Your task to perform on an android device: open app "Cash App" Image 0: 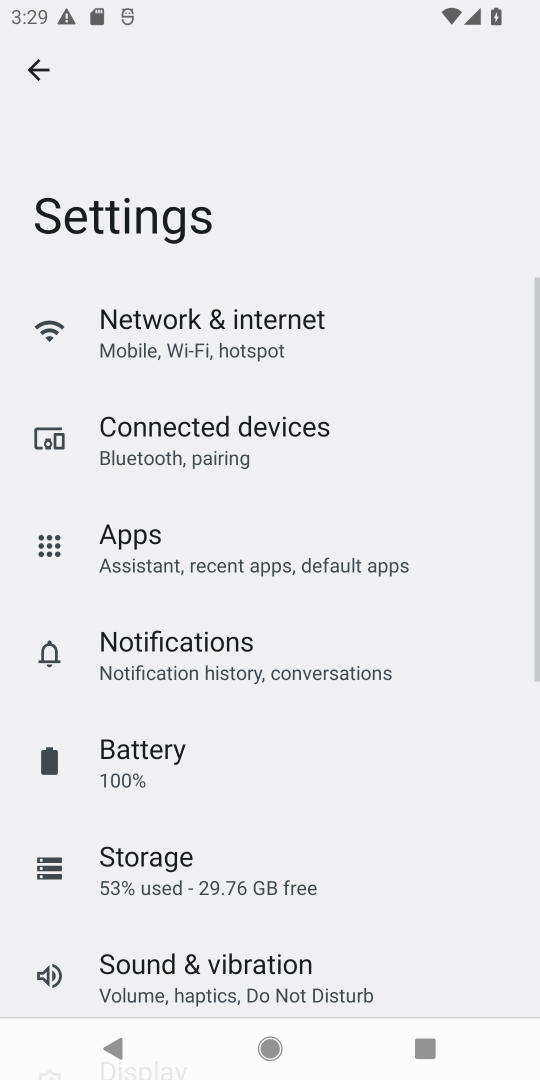
Step 0: press back button
Your task to perform on an android device: open app "Cash App" Image 1: 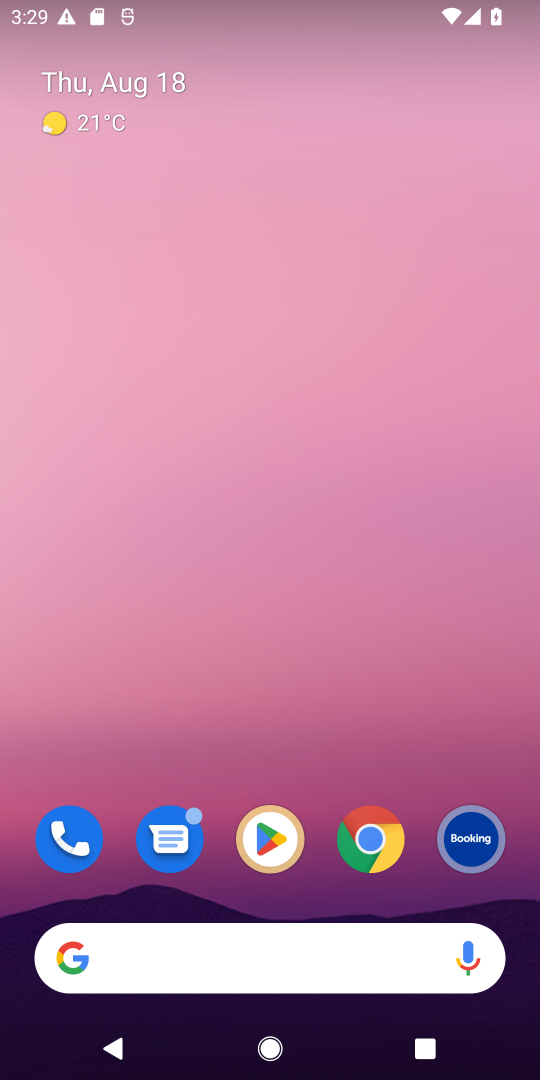
Step 1: click (264, 845)
Your task to perform on an android device: open app "Cash App" Image 2: 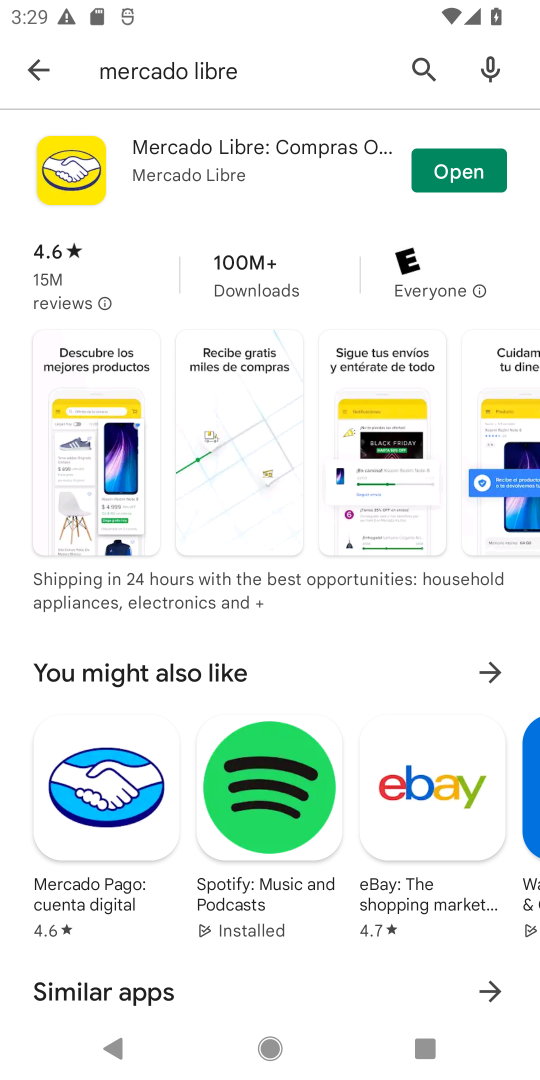
Step 2: click (48, 78)
Your task to perform on an android device: open app "Cash App" Image 3: 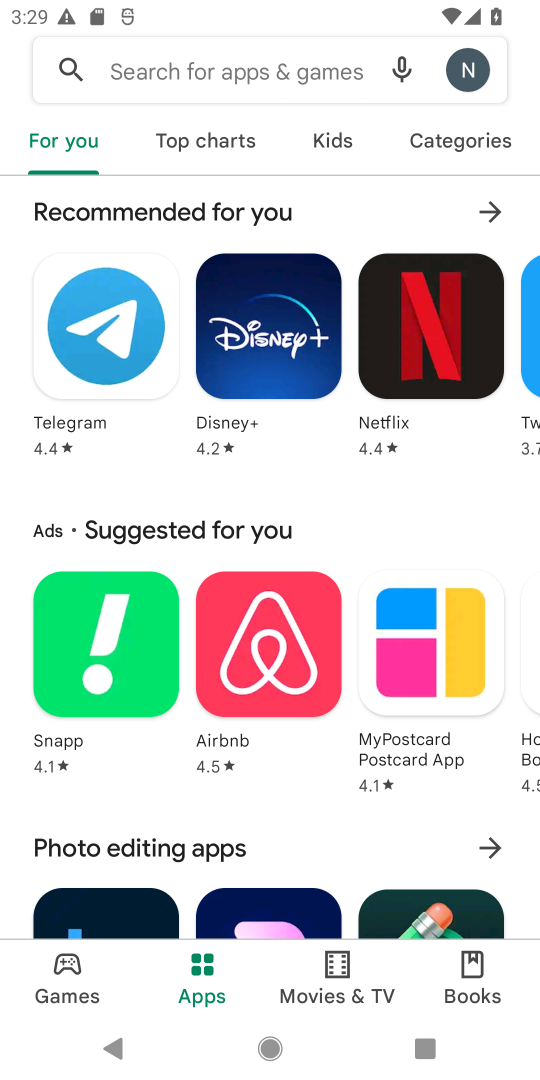
Step 3: click (141, 83)
Your task to perform on an android device: open app "Cash App" Image 4: 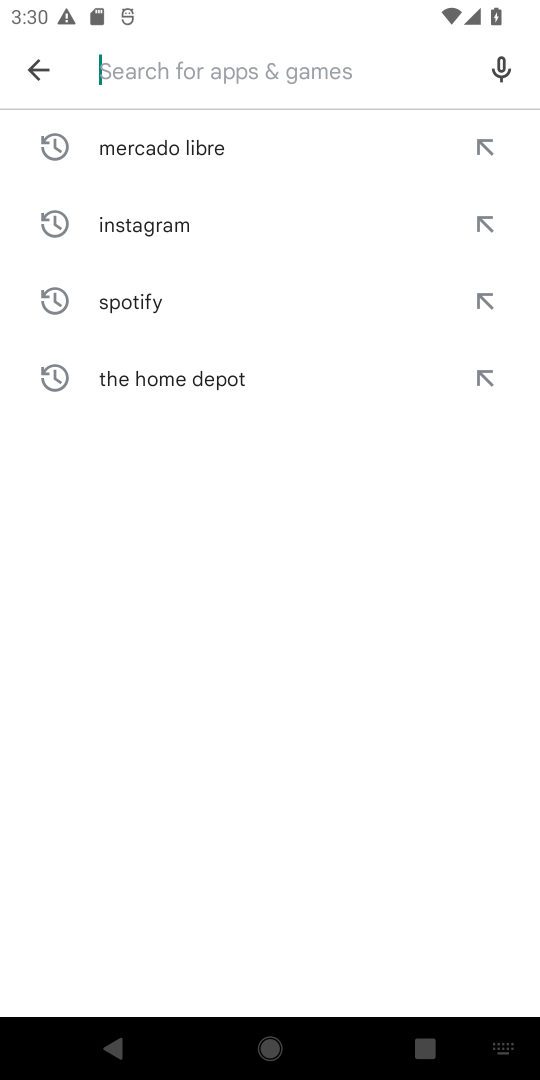
Step 4: type "Cash App"
Your task to perform on an android device: open app "Cash App" Image 5: 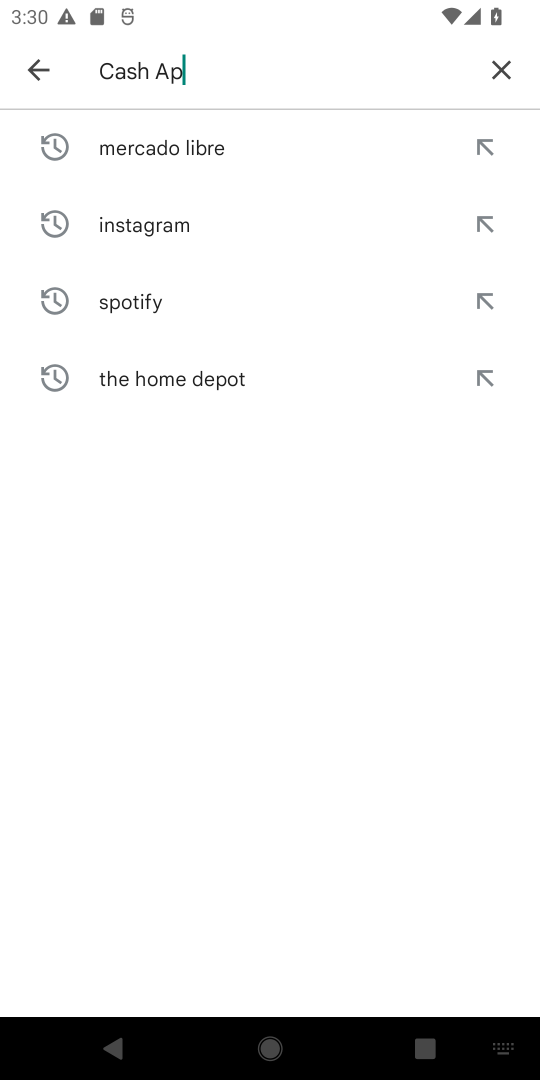
Step 5: type ""
Your task to perform on an android device: open app "Cash App" Image 6: 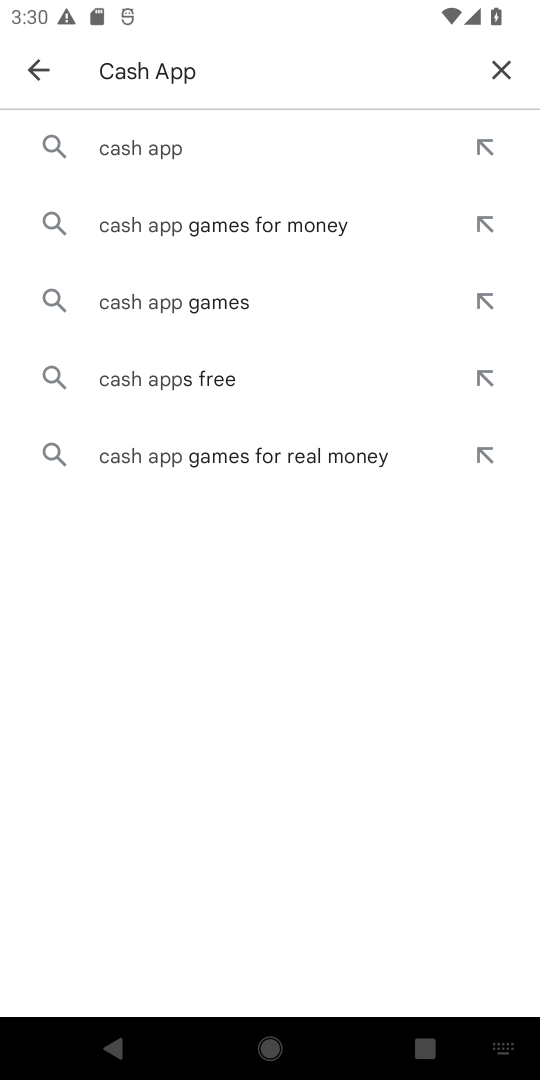
Step 6: click (151, 144)
Your task to perform on an android device: open app "Cash App" Image 7: 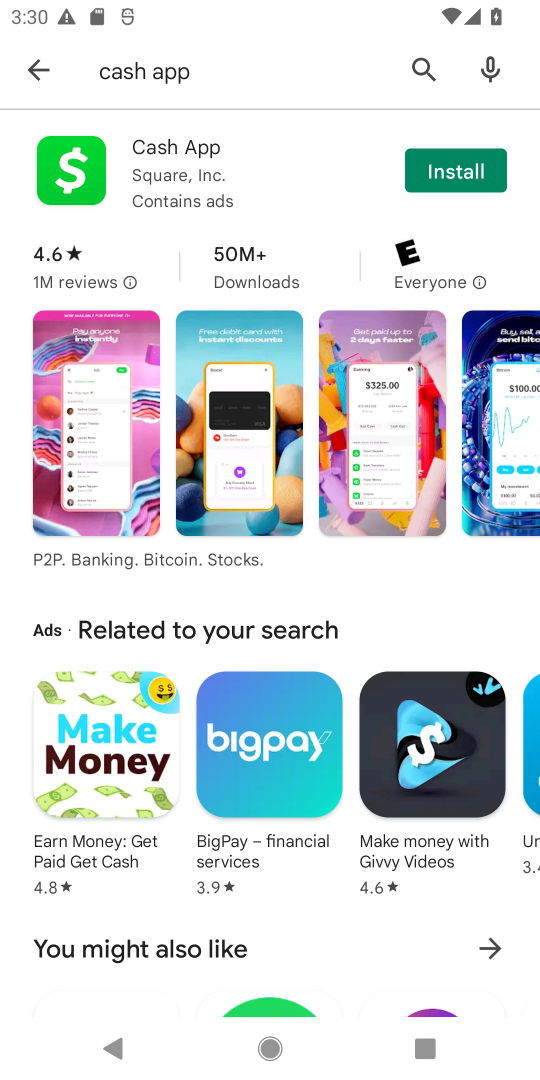
Step 7: task complete